Your task to perform on an android device: uninstall "Life360: Find Family & Friends" Image 0: 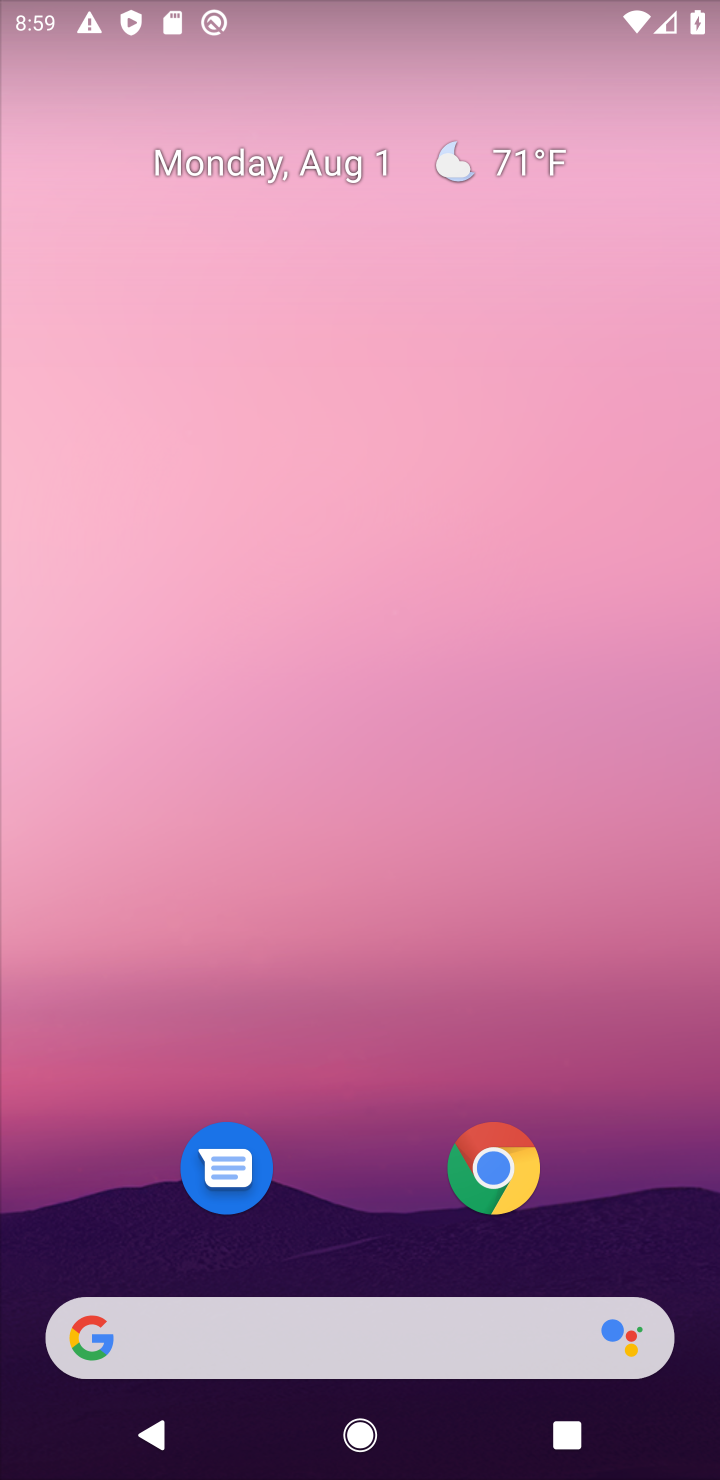
Step 0: drag from (340, 1228) to (236, 194)
Your task to perform on an android device: uninstall "Life360: Find Family & Friends" Image 1: 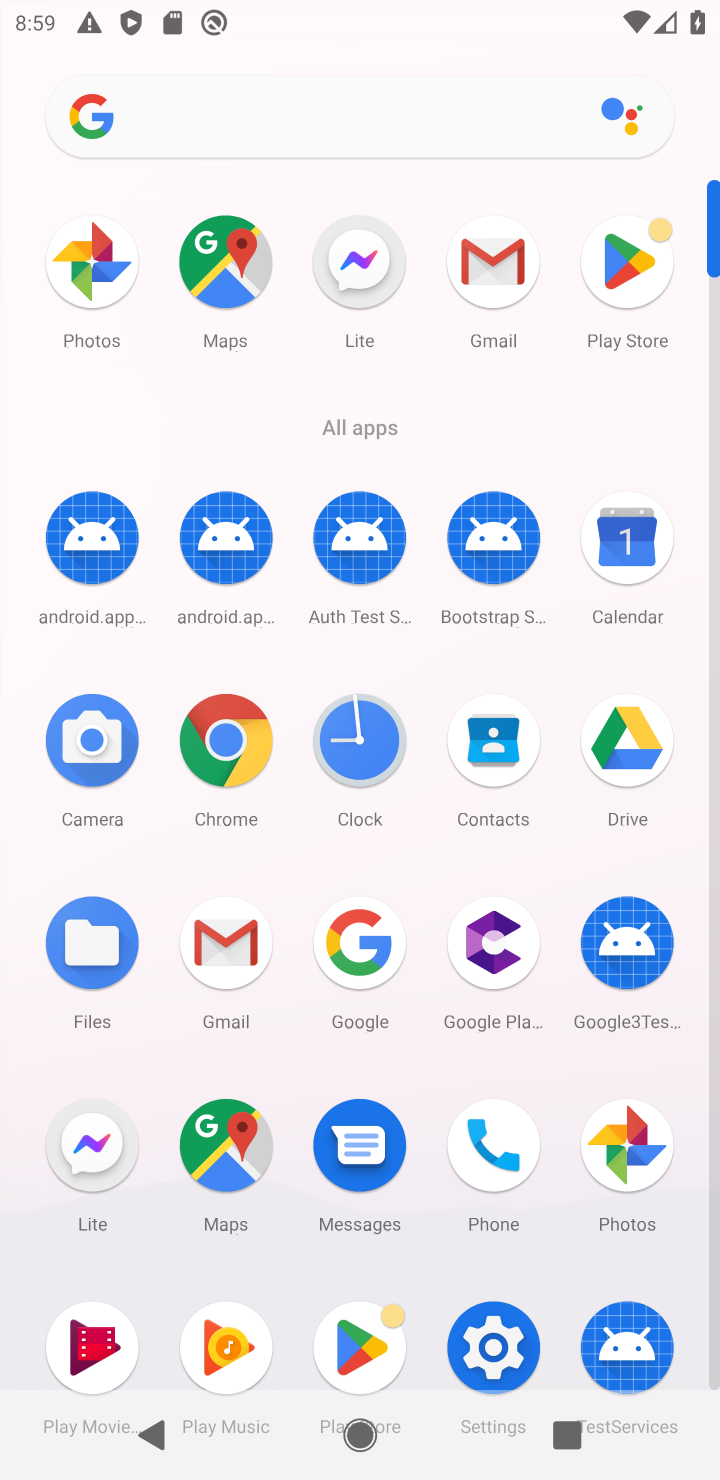
Step 1: click (343, 1323)
Your task to perform on an android device: uninstall "Life360: Find Family & Friends" Image 2: 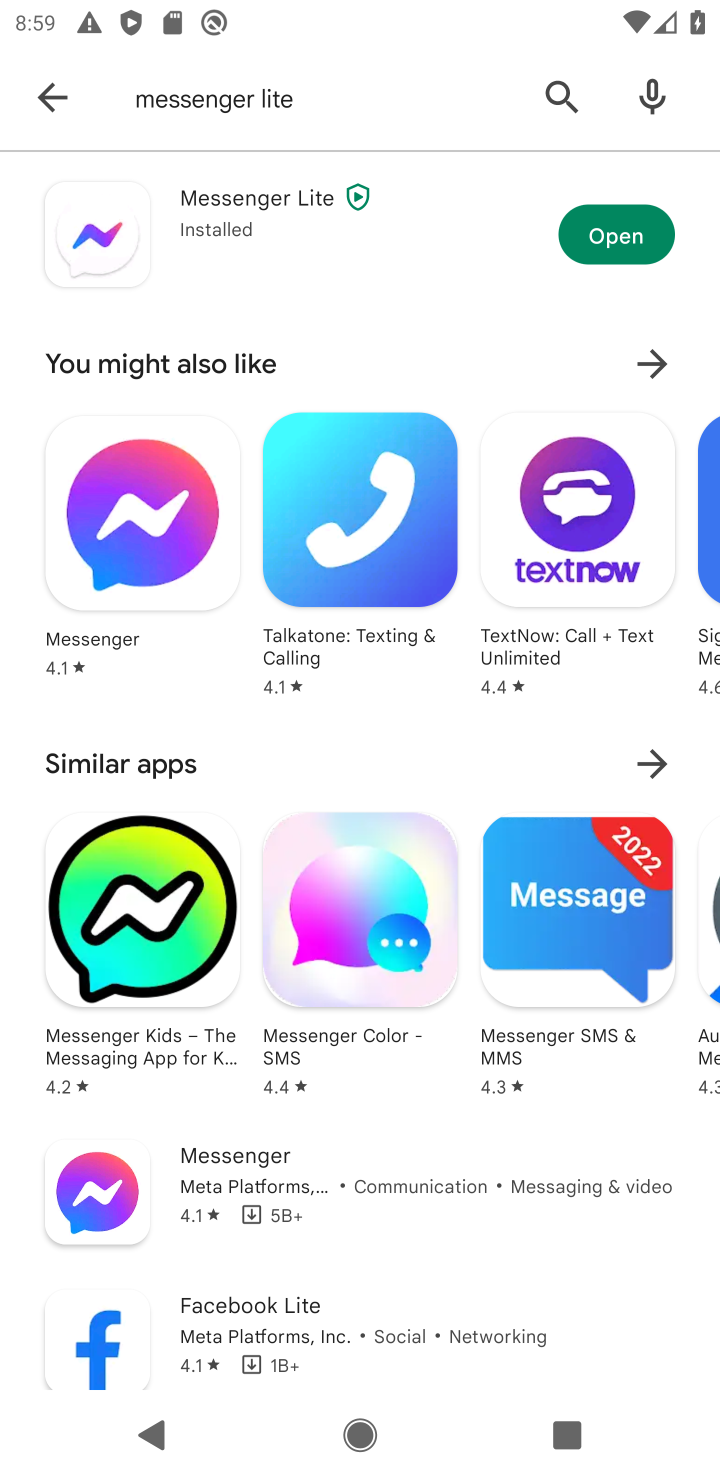
Step 2: click (70, 96)
Your task to perform on an android device: uninstall "Life360: Find Family & Friends" Image 3: 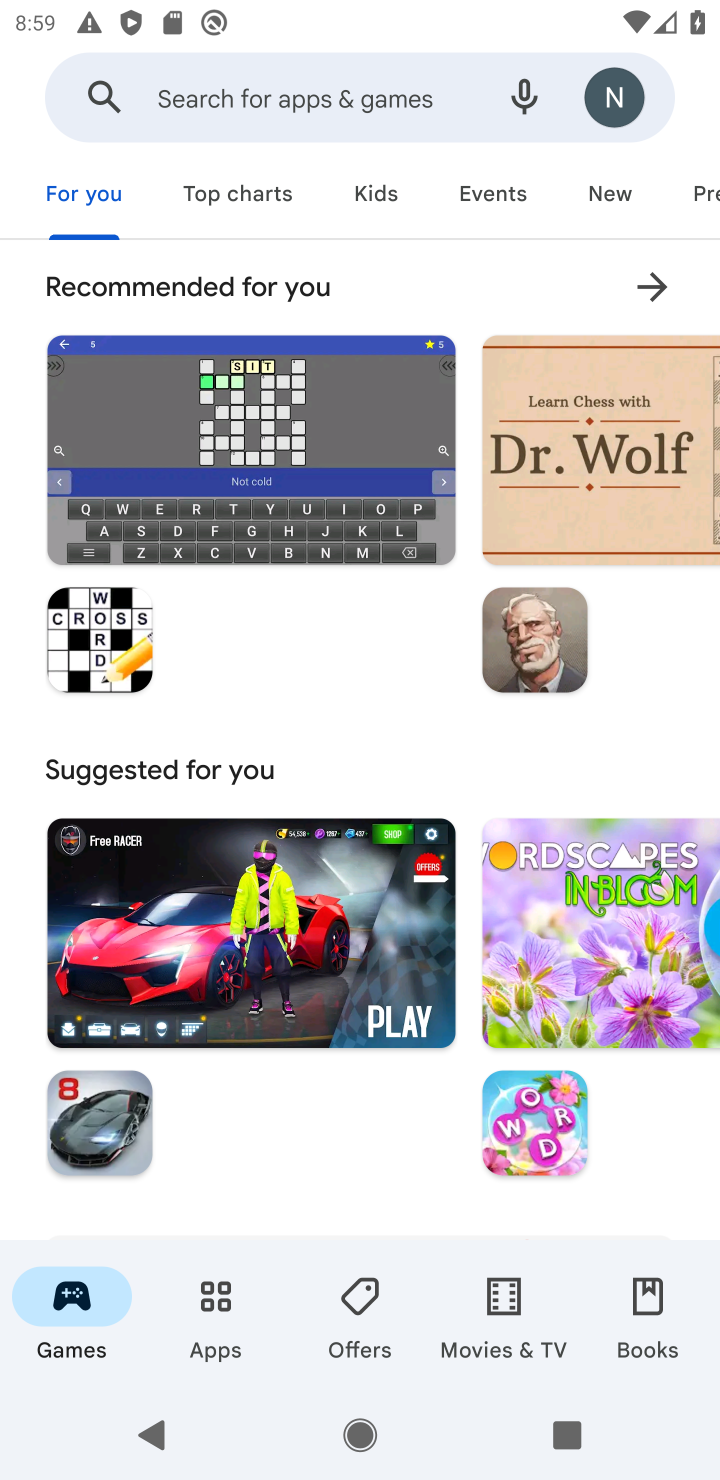
Step 3: click (179, 98)
Your task to perform on an android device: uninstall "Life360: Find Family & Friends" Image 4: 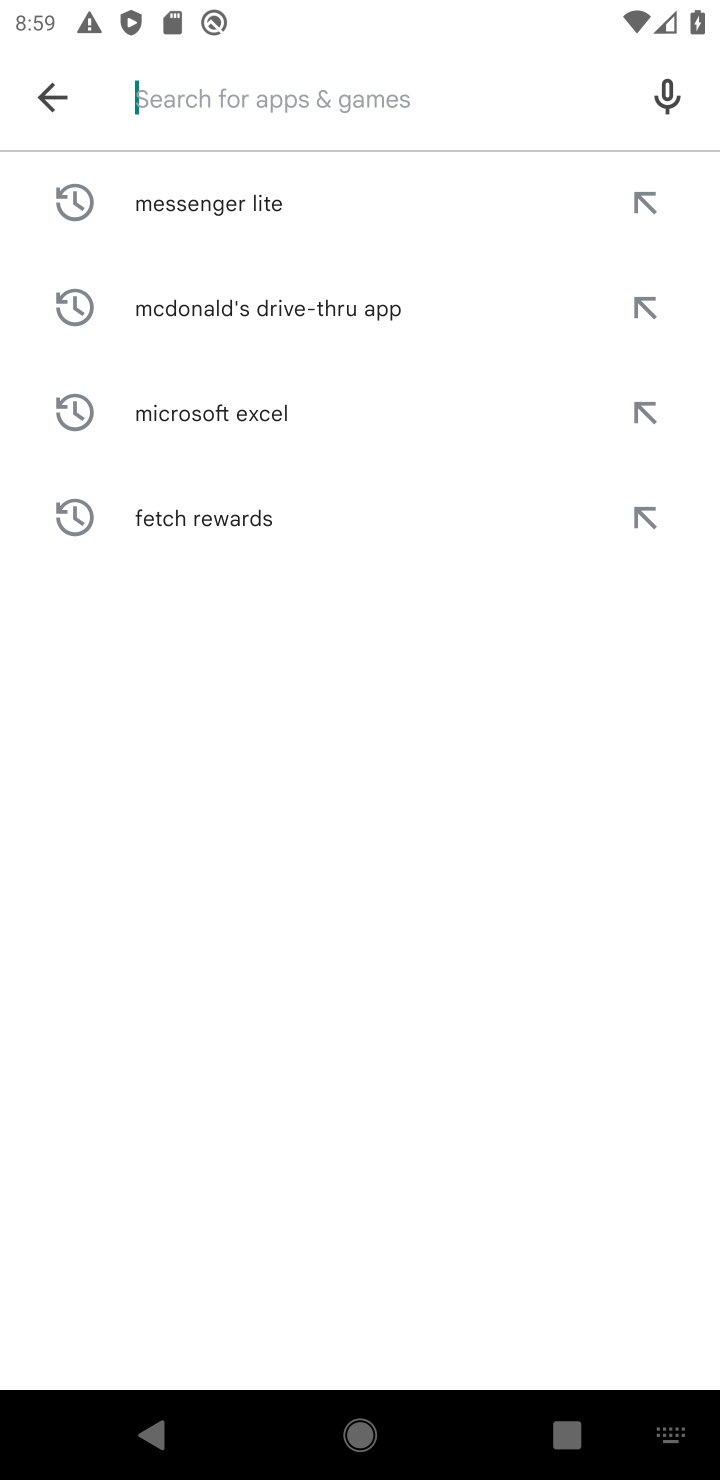
Step 4: type "Life360"
Your task to perform on an android device: uninstall "Life360: Find Family & Friends" Image 5: 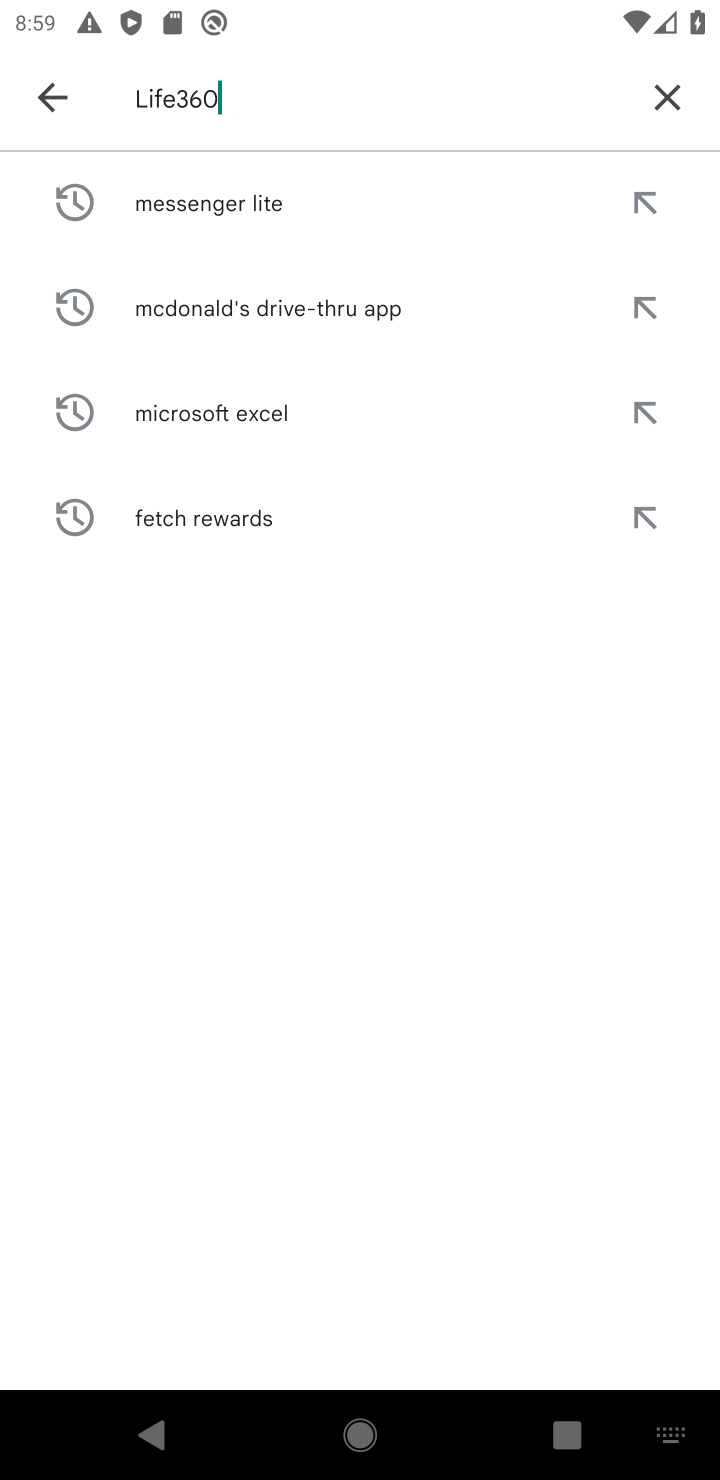
Step 5: type ""
Your task to perform on an android device: uninstall "Life360: Find Family & Friends" Image 6: 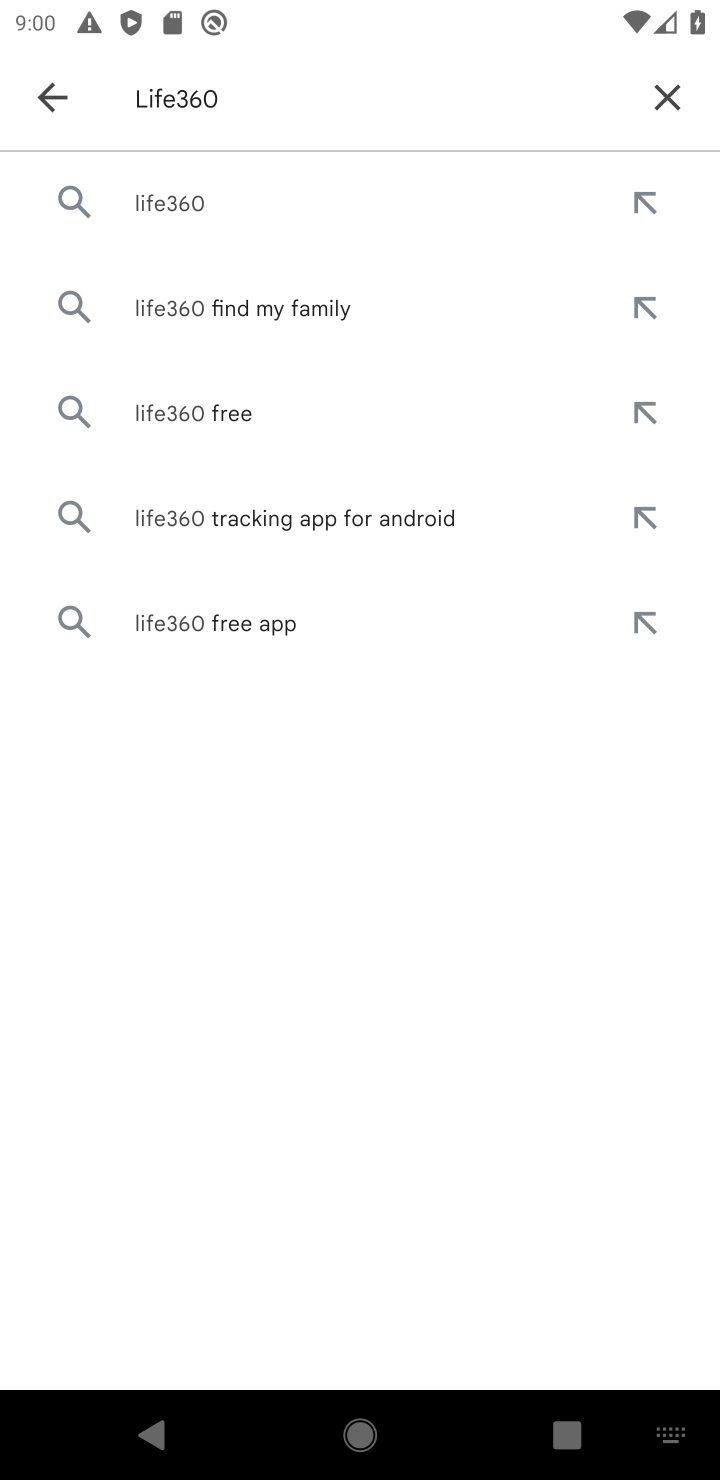
Step 6: click (180, 197)
Your task to perform on an android device: uninstall "Life360: Find Family & Friends" Image 7: 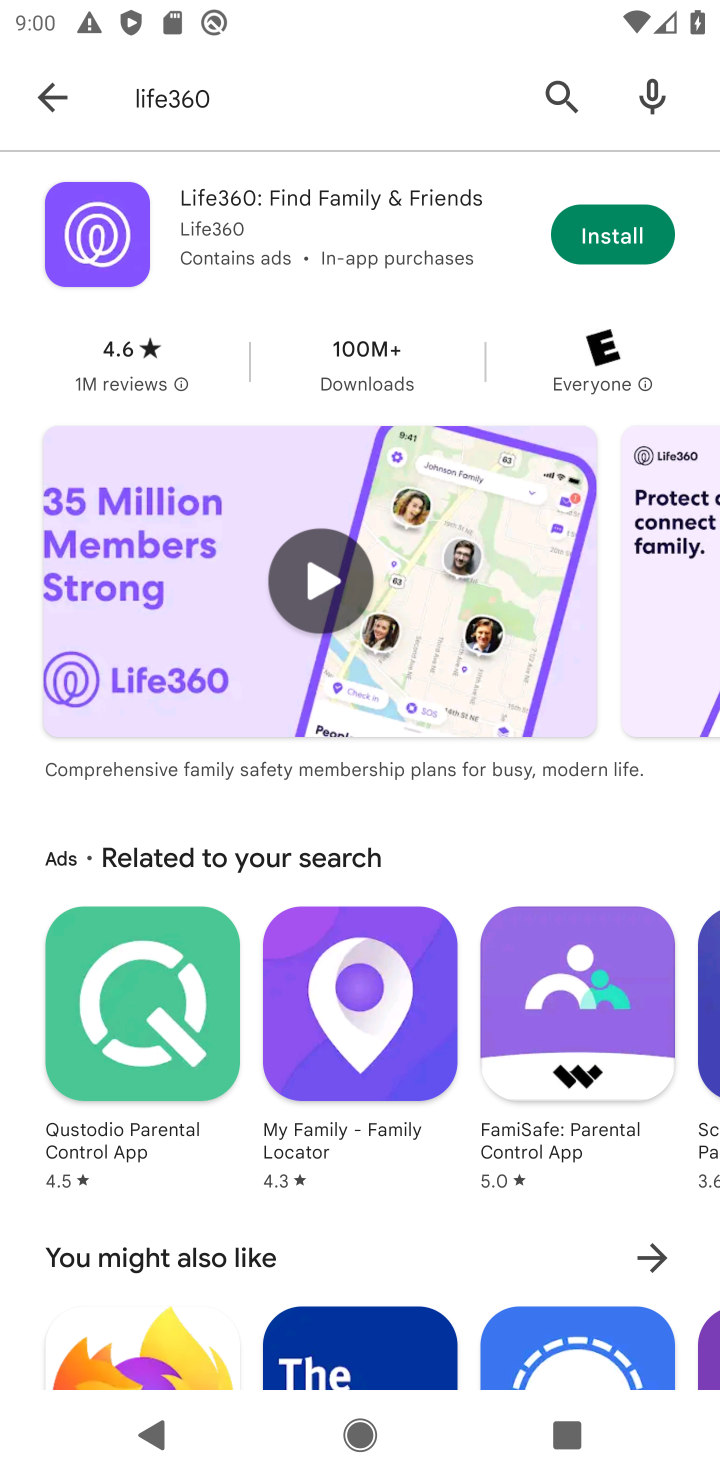
Step 7: task complete